Your task to perform on an android device: check data usage Image 0: 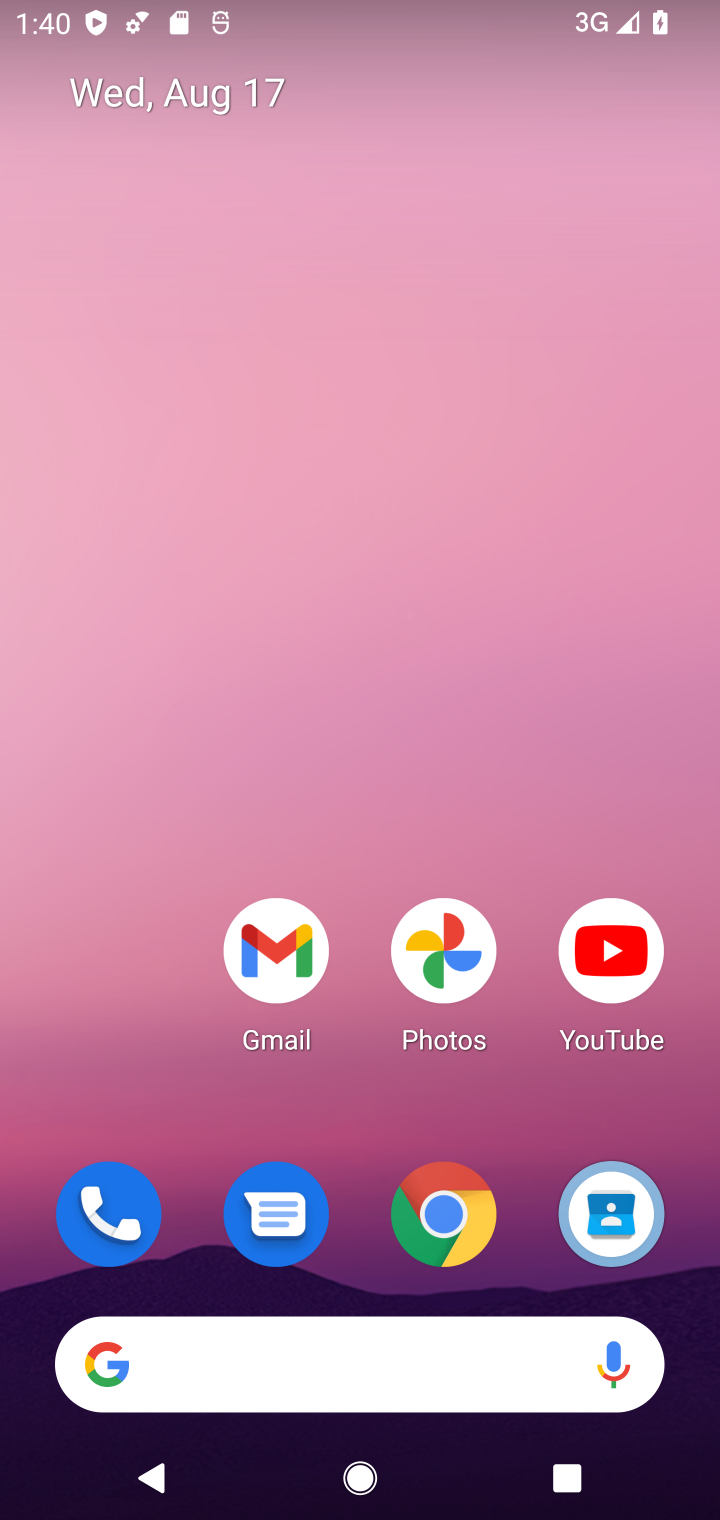
Step 0: drag from (368, 1261) to (279, 430)
Your task to perform on an android device: check data usage Image 1: 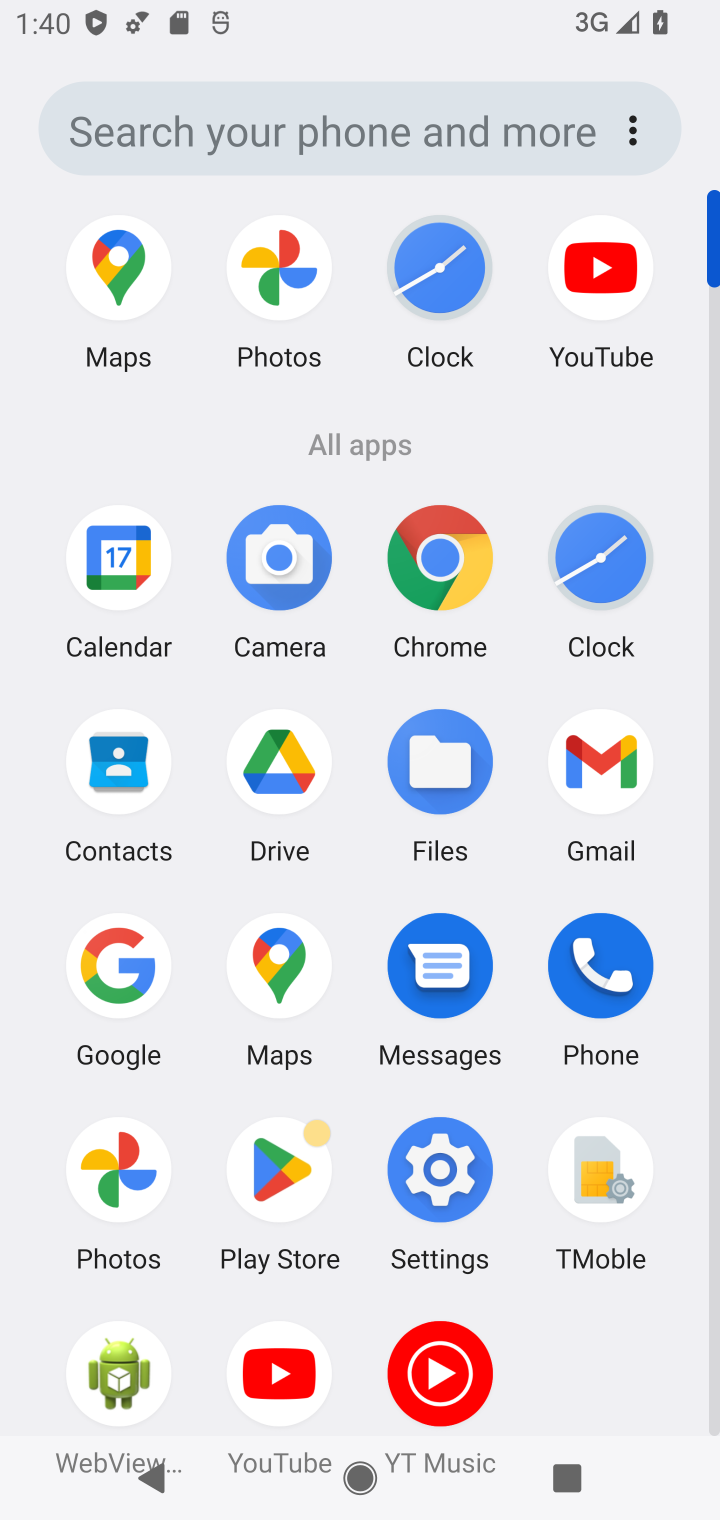
Step 1: click (442, 1167)
Your task to perform on an android device: check data usage Image 2: 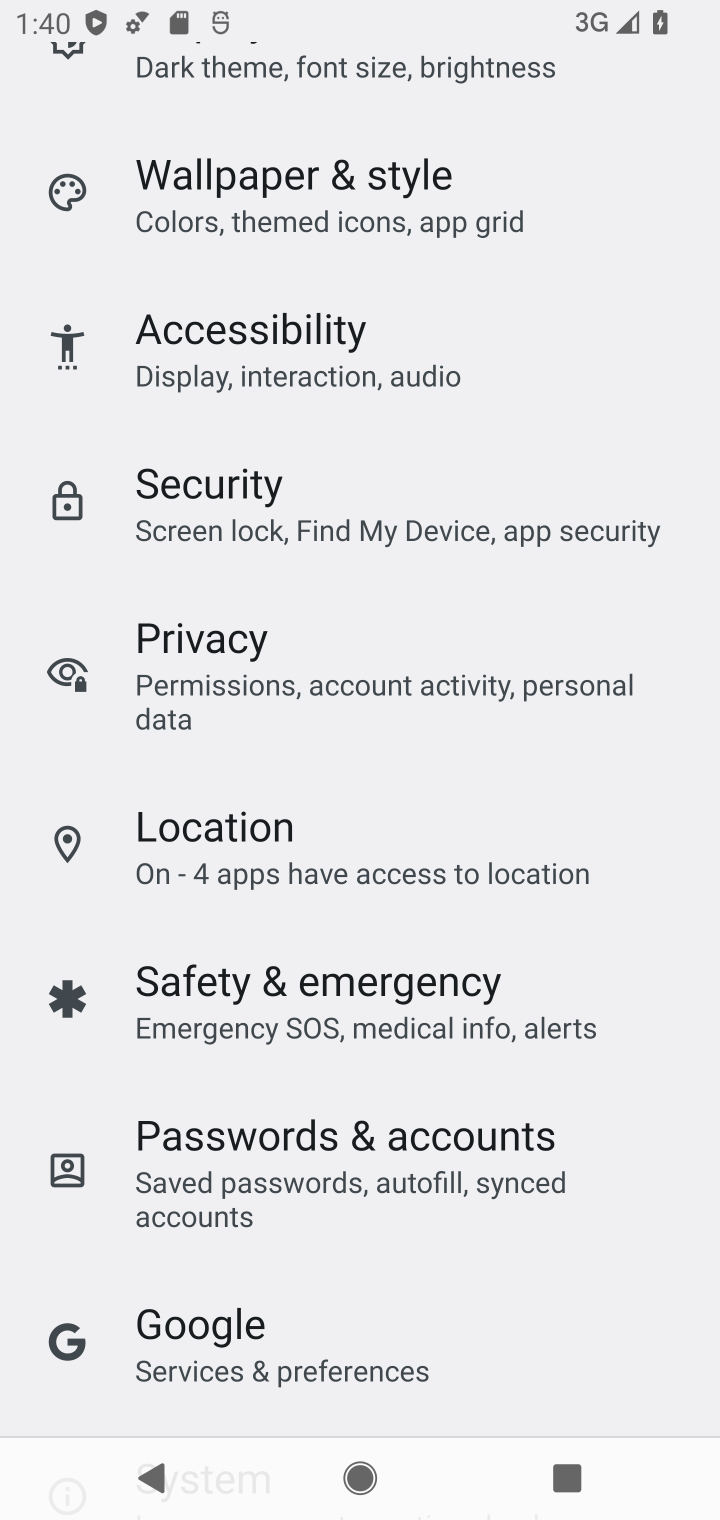
Step 2: drag from (395, 283) to (484, 1146)
Your task to perform on an android device: check data usage Image 3: 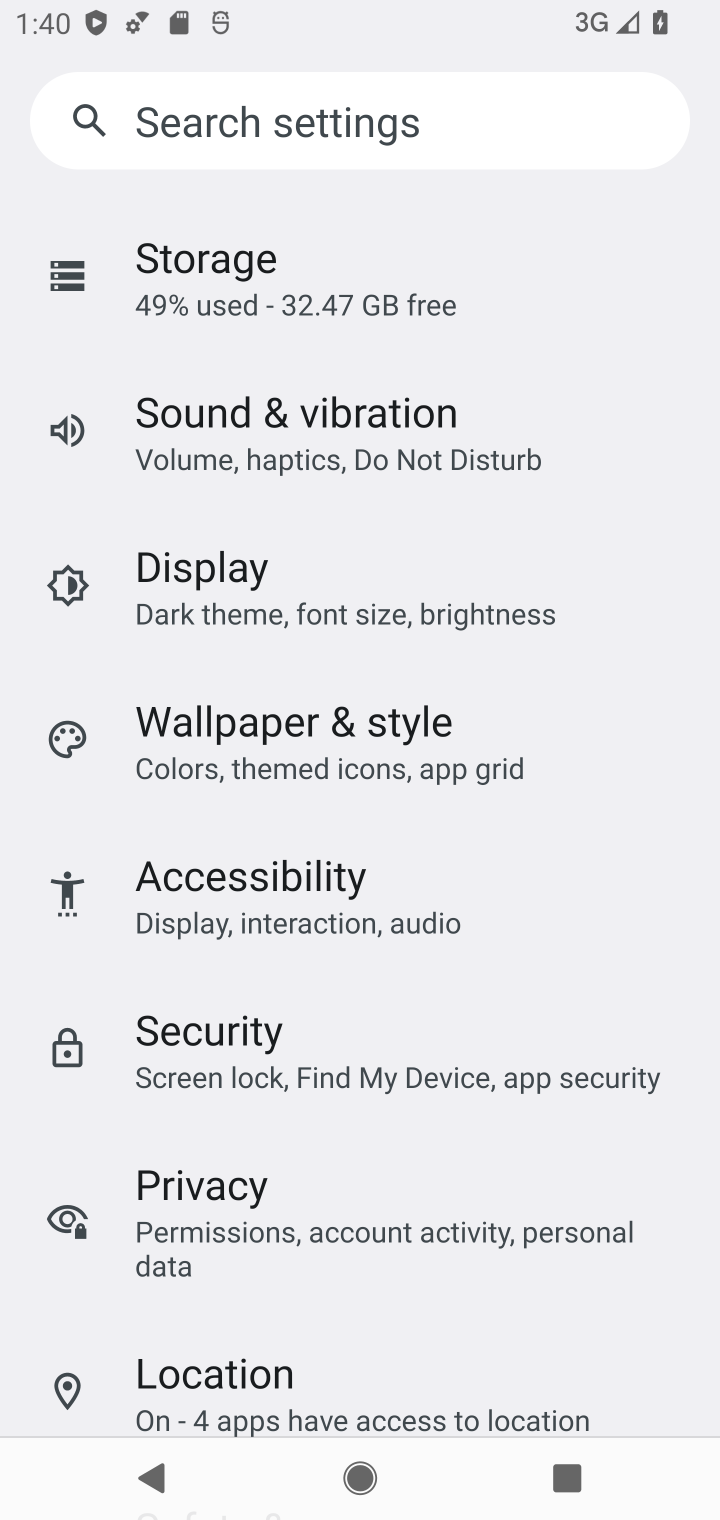
Step 3: drag from (327, 375) to (438, 1415)
Your task to perform on an android device: check data usage Image 4: 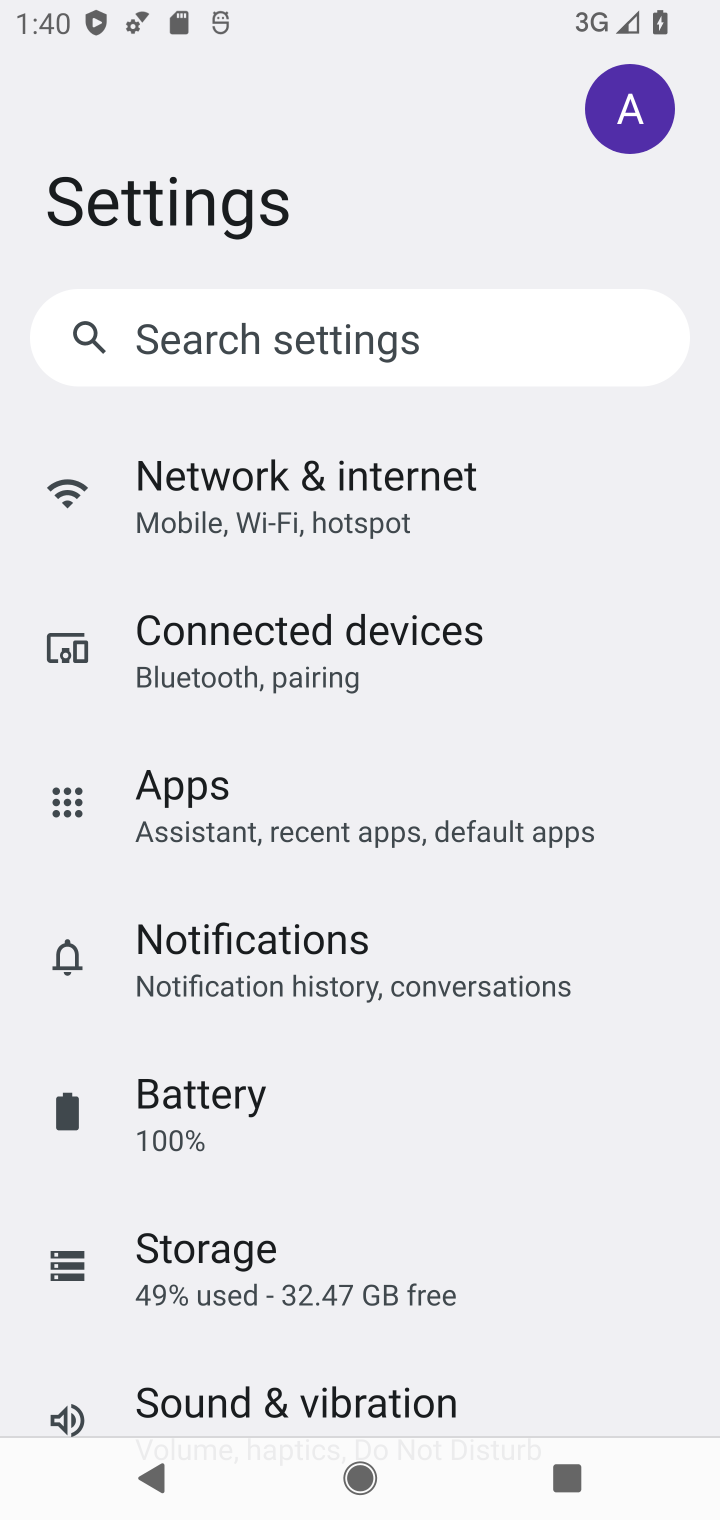
Step 4: click (269, 465)
Your task to perform on an android device: check data usage Image 5: 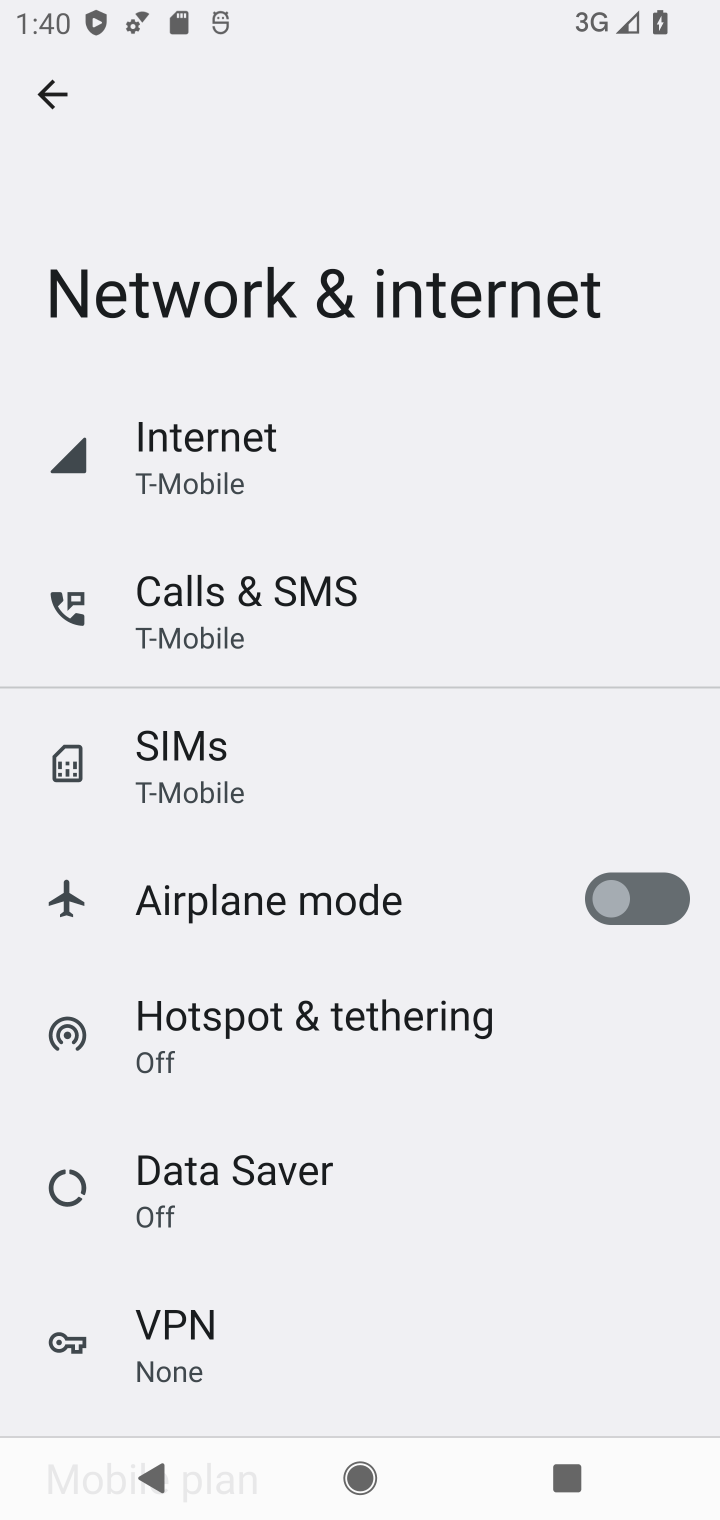
Step 5: click (192, 427)
Your task to perform on an android device: check data usage Image 6: 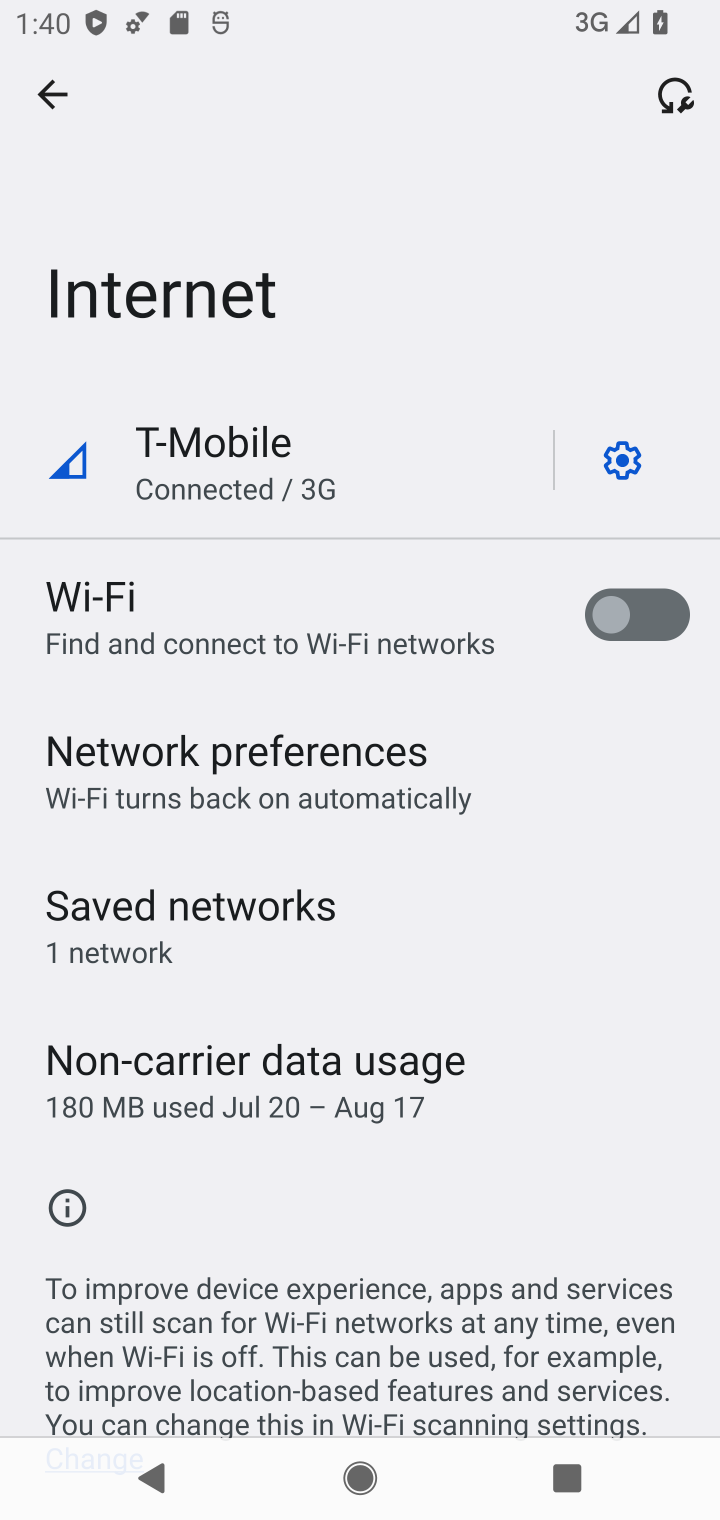
Step 6: click (246, 1056)
Your task to perform on an android device: check data usage Image 7: 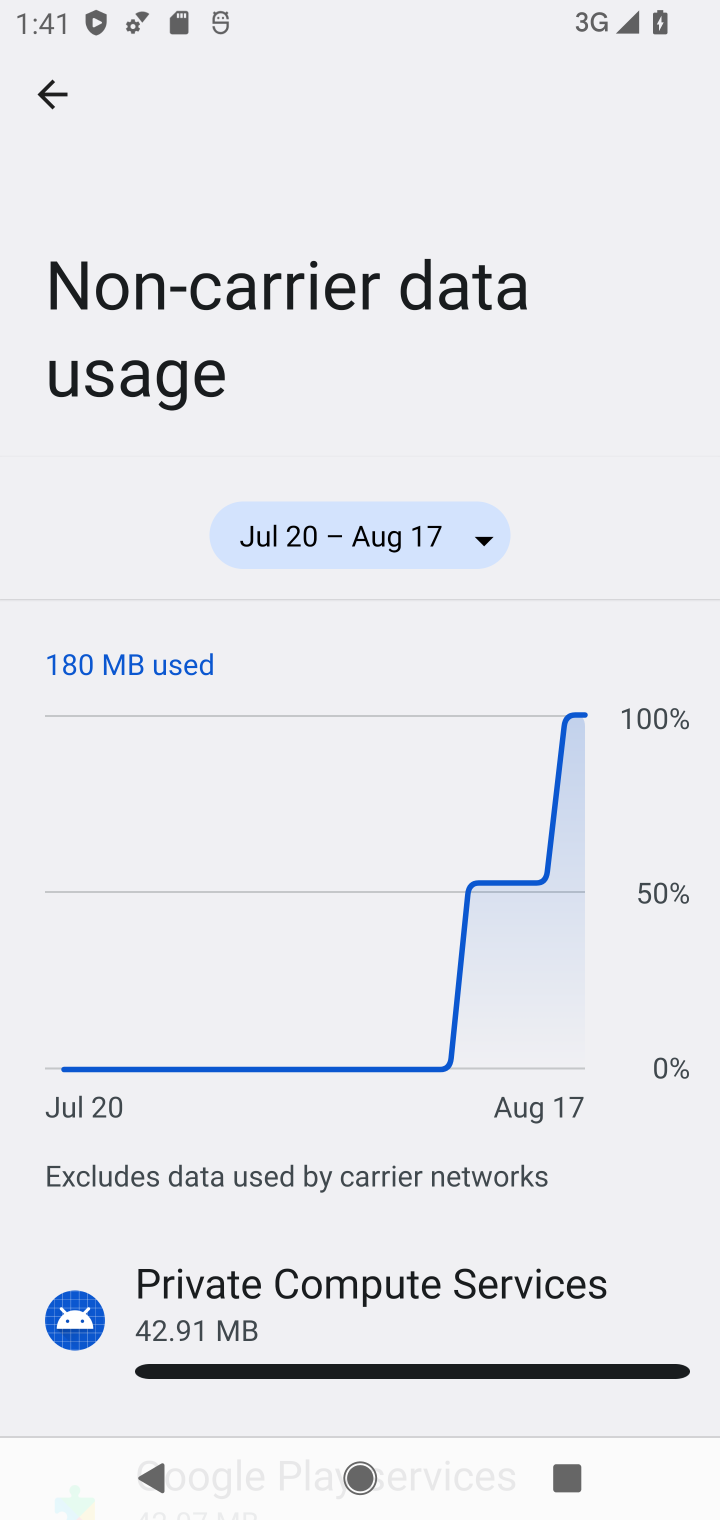
Step 7: task complete